Your task to perform on an android device: Search for sushi restaurants on Maps Image 0: 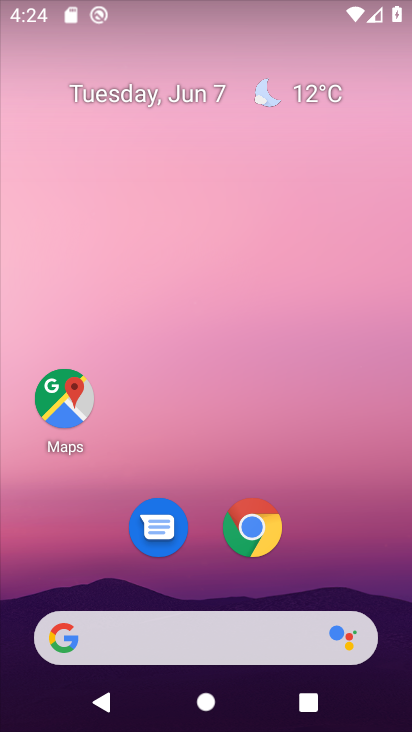
Step 0: click (69, 396)
Your task to perform on an android device: Search for sushi restaurants on Maps Image 1: 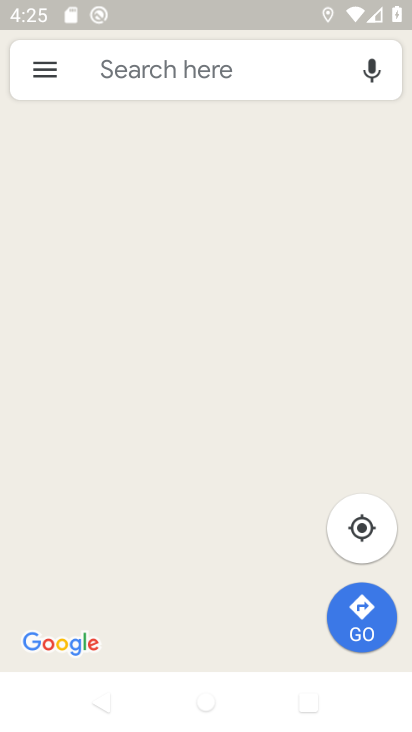
Step 1: click (228, 71)
Your task to perform on an android device: Search for sushi restaurants on Maps Image 2: 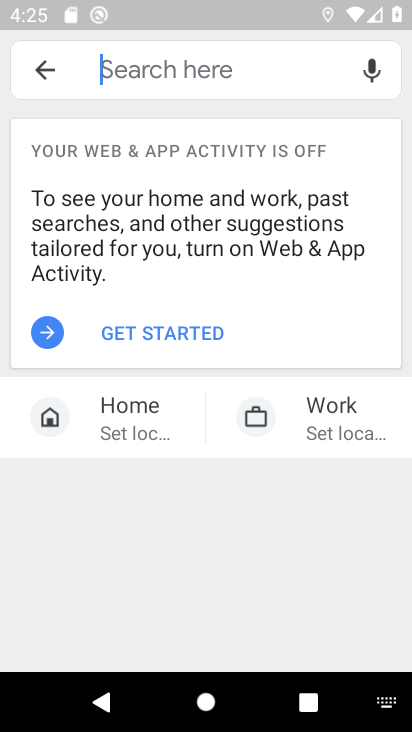
Step 2: type "sushi restaurants"
Your task to perform on an android device: Search for sushi restaurants on Maps Image 3: 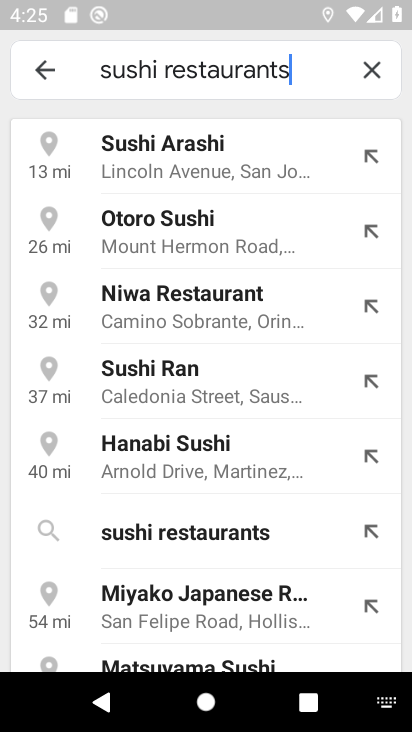
Step 3: click (245, 547)
Your task to perform on an android device: Search for sushi restaurants on Maps Image 4: 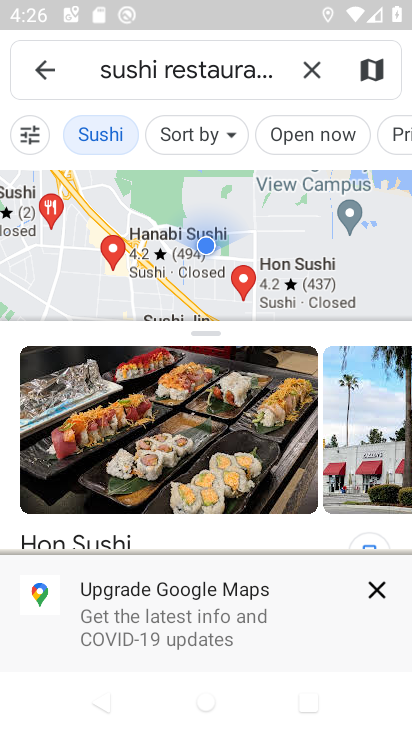
Step 4: task complete